Your task to perform on an android device: uninstall "Gmail" Image 0: 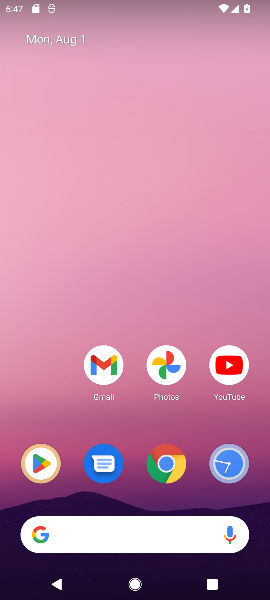
Step 0: click (105, 386)
Your task to perform on an android device: uninstall "Gmail" Image 1: 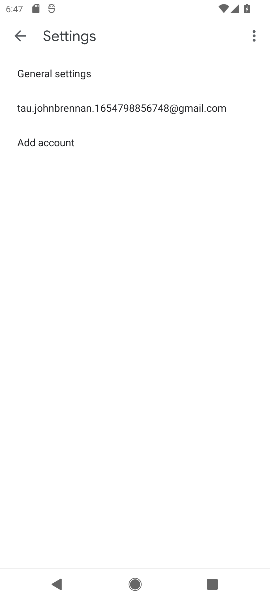
Step 1: task complete